Your task to perform on an android device: turn off wifi Image 0: 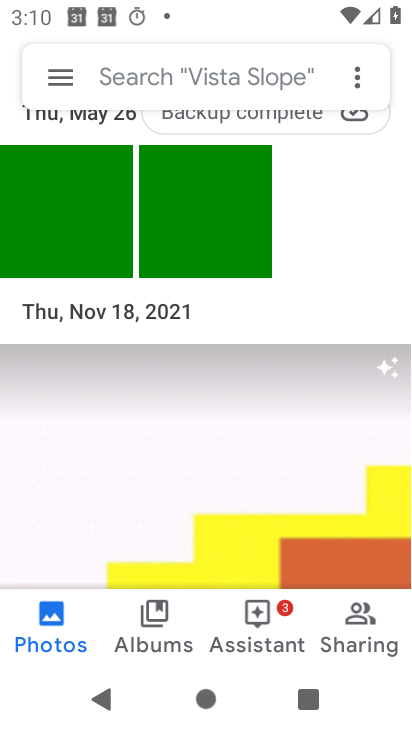
Step 0: press home button
Your task to perform on an android device: turn off wifi Image 1: 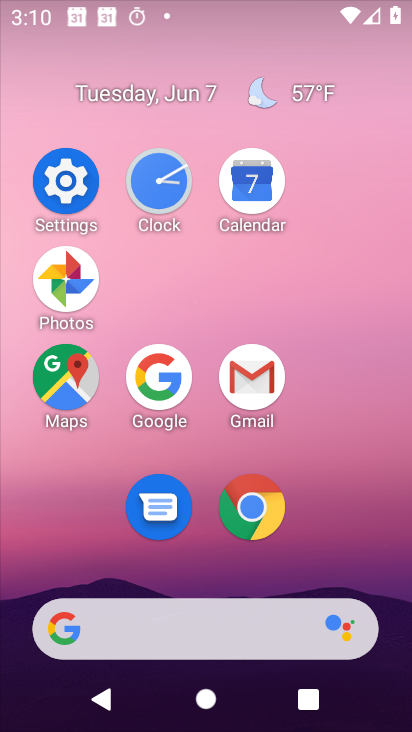
Step 1: click (82, 181)
Your task to perform on an android device: turn off wifi Image 2: 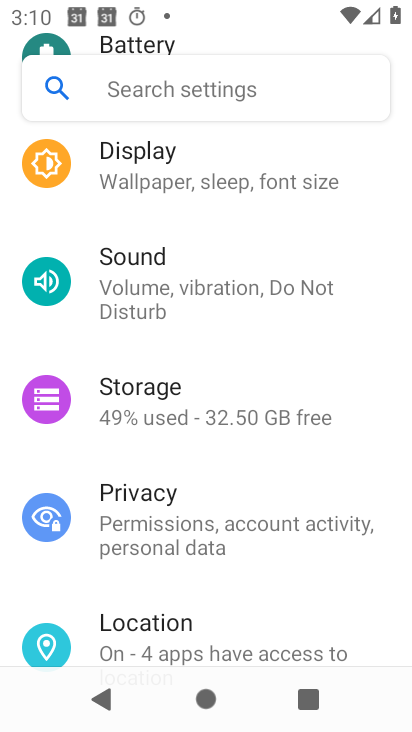
Step 2: drag from (310, 210) to (241, 511)
Your task to perform on an android device: turn off wifi Image 3: 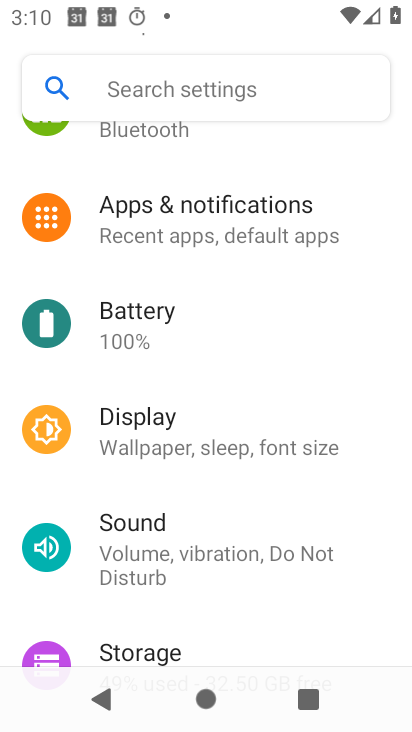
Step 3: drag from (311, 173) to (259, 570)
Your task to perform on an android device: turn off wifi Image 4: 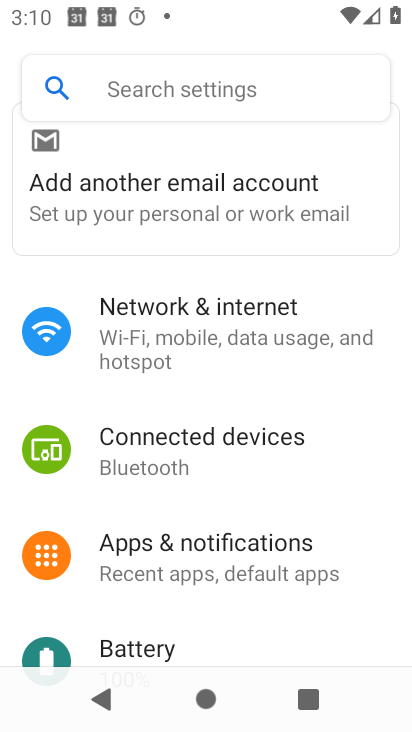
Step 4: click (202, 308)
Your task to perform on an android device: turn off wifi Image 5: 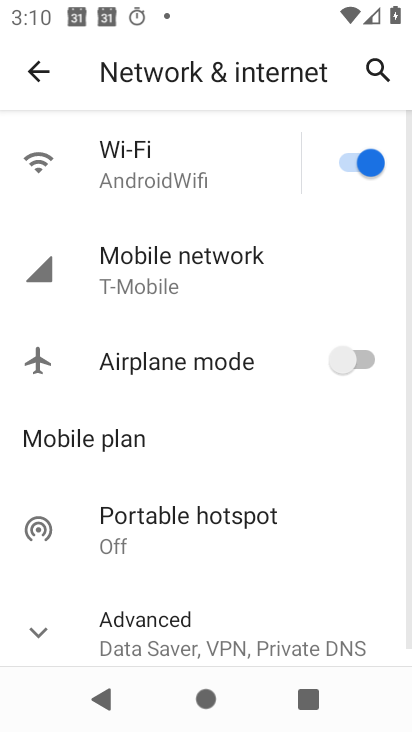
Step 5: click (366, 146)
Your task to perform on an android device: turn off wifi Image 6: 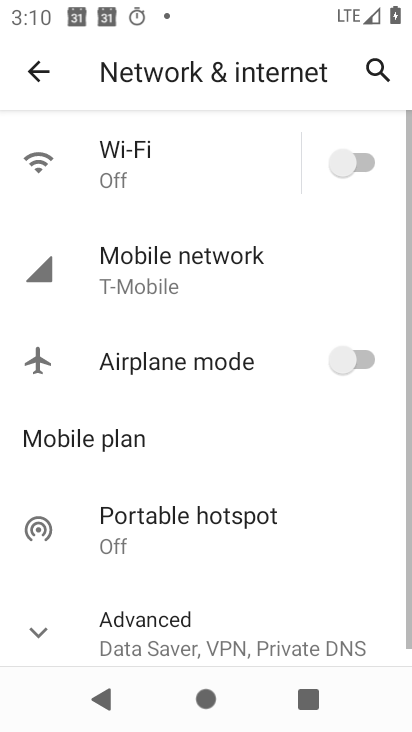
Step 6: task complete